Your task to perform on an android device: snooze an email in the gmail app Image 0: 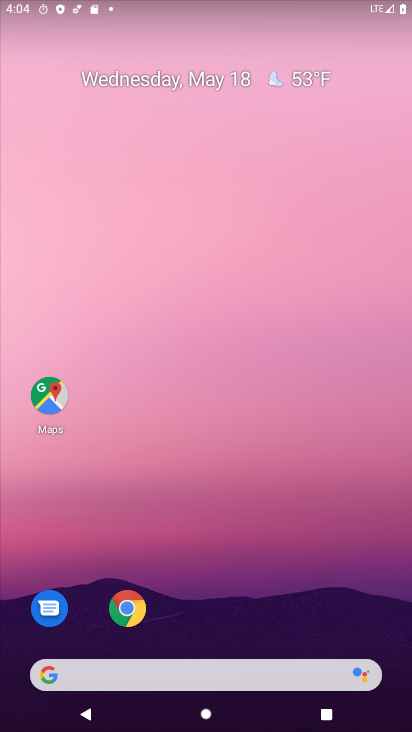
Step 0: drag from (289, 652) to (294, 10)
Your task to perform on an android device: snooze an email in the gmail app Image 1: 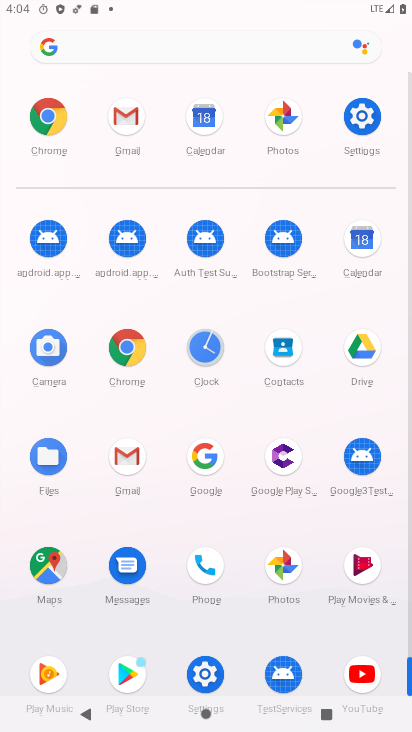
Step 1: click (126, 470)
Your task to perform on an android device: snooze an email in the gmail app Image 2: 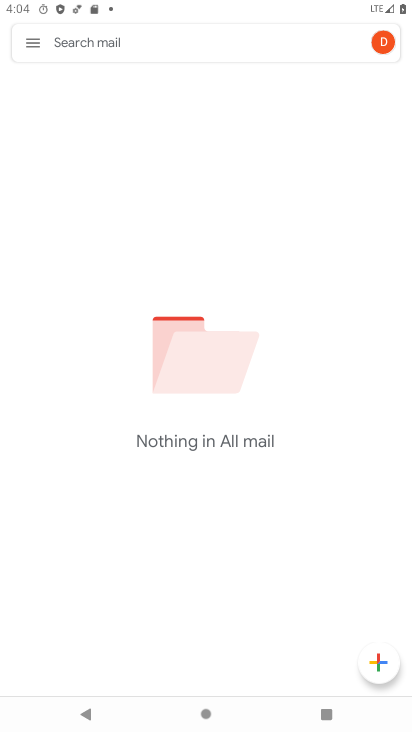
Step 2: click (37, 34)
Your task to perform on an android device: snooze an email in the gmail app Image 3: 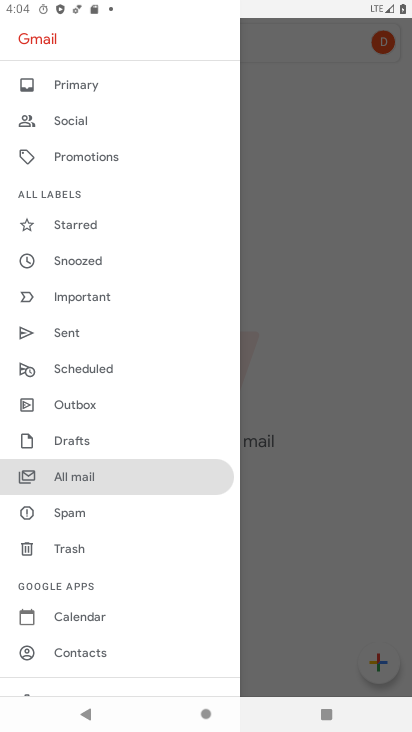
Step 3: click (109, 257)
Your task to perform on an android device: snooze an email in the gmail app Image 4: 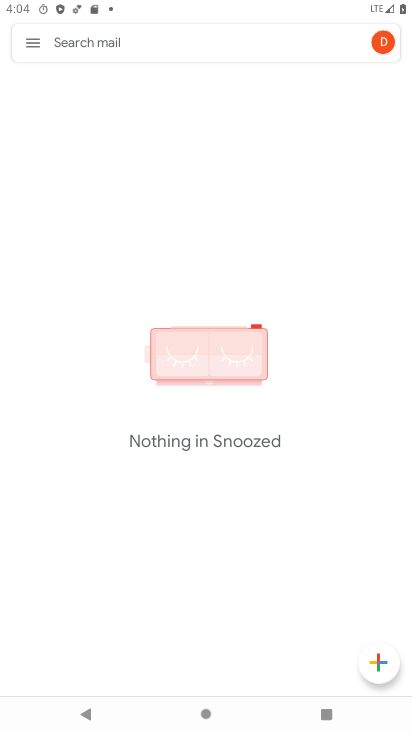
Step 4: task complete